Your task to perform on an android device: turn smart compose on in the gmail app Image 0: 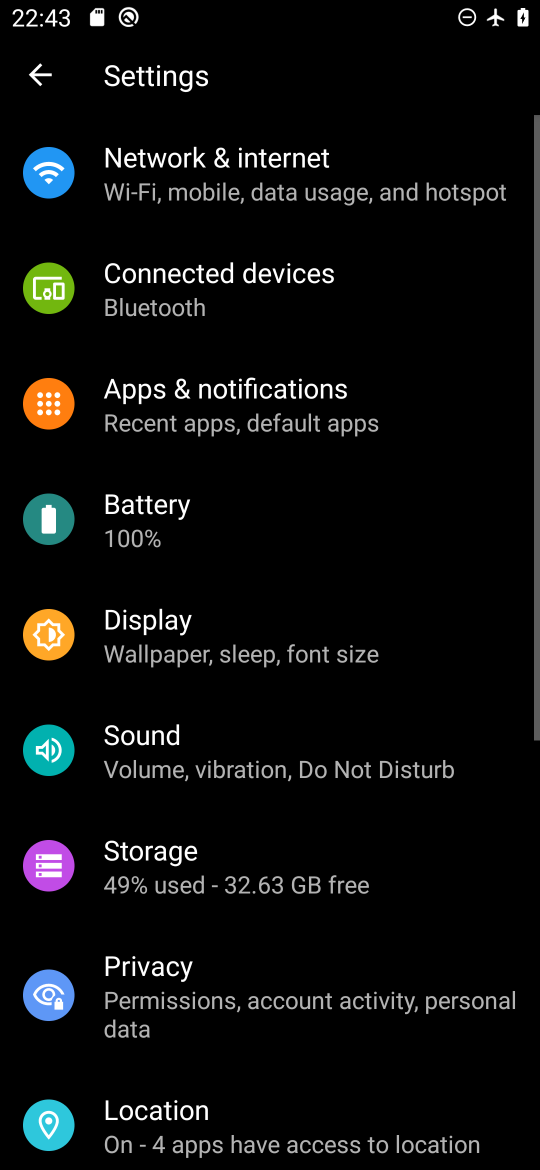
Step 0: press home button
Your task to perform on an android device: turn smart compose on in the gmail app Image 1: 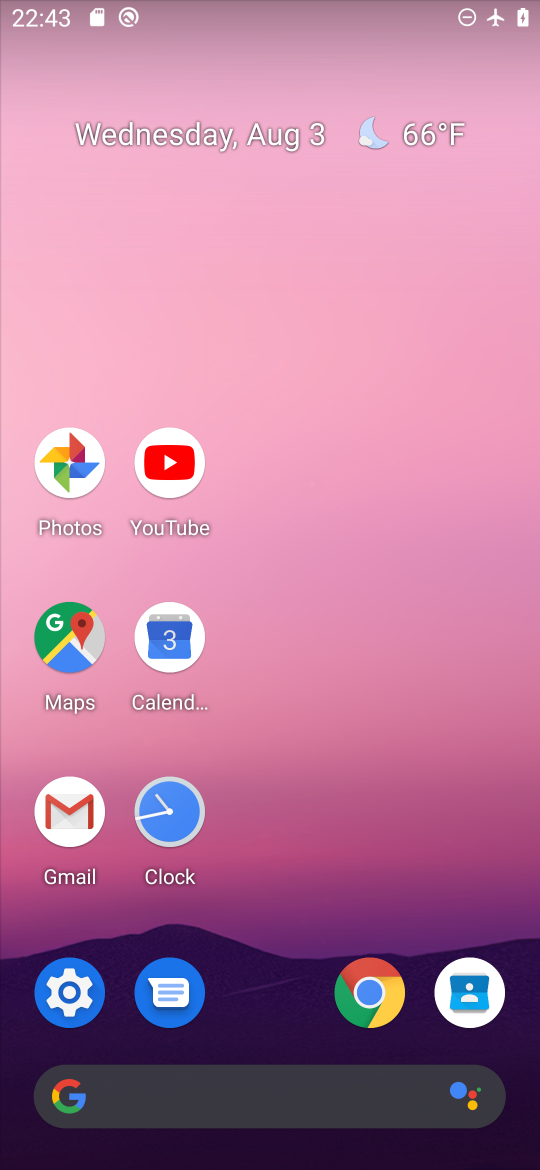
Step 1: click (76, 822)
Your task to perform on an android device: turn smart compose on in the gmail app Image 2: 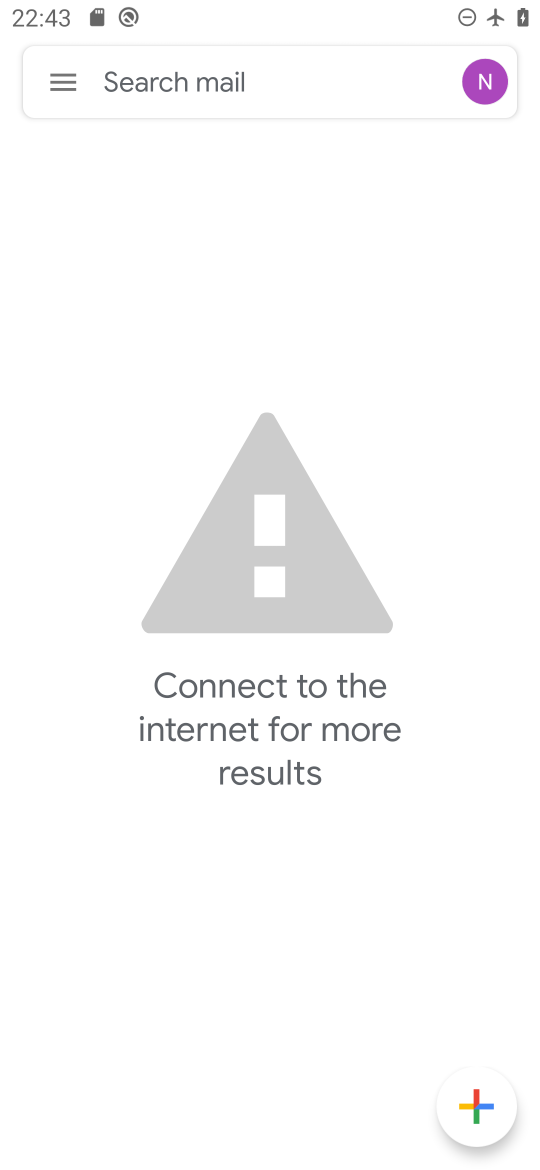
Step 2: click (57, 69)
Your task to perform on an android device: turn smart compose on in the gmail app Image 3: 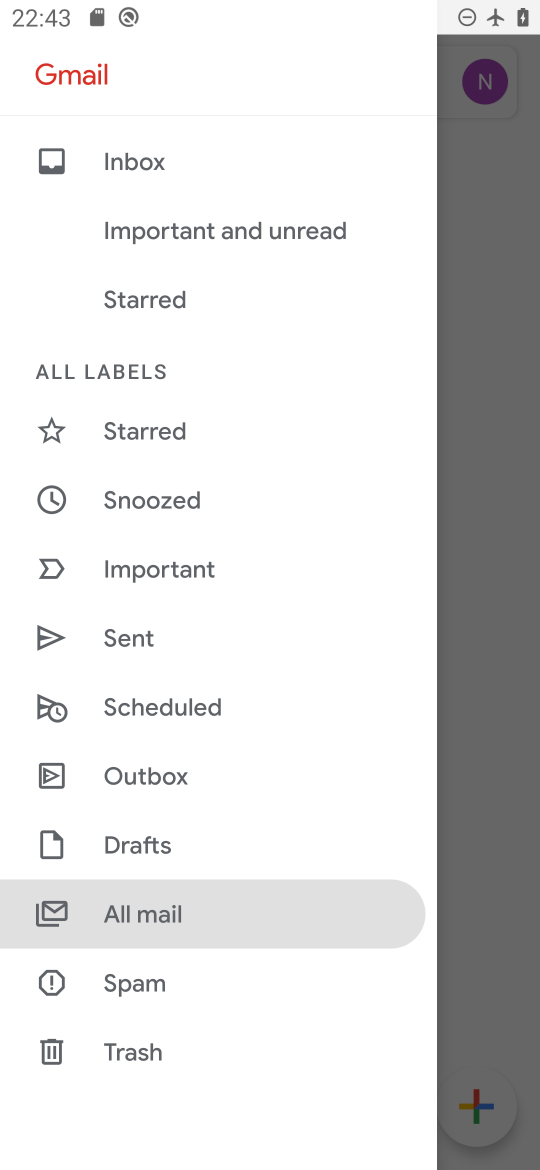
Step 3: drag from (245, 1051) to (216, 437)
Your task to perform on an android device: turn smart compose on in the gmail app Image 4: 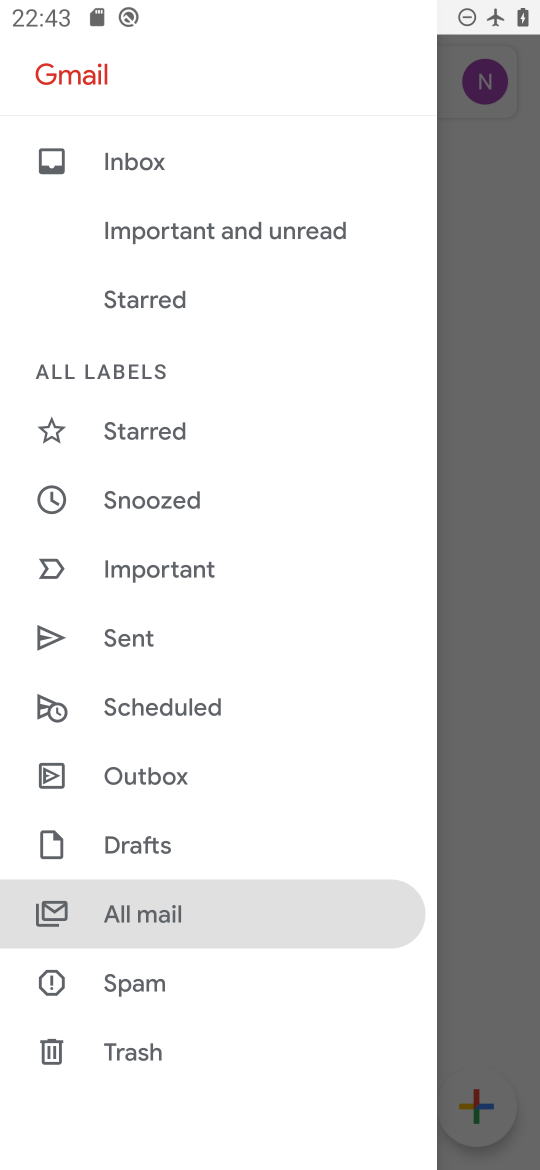
Step 4: drag from (254, 826) to (255, 268)
Your task to perform on an android device: turn smart compose on in the gmail app Image 5: 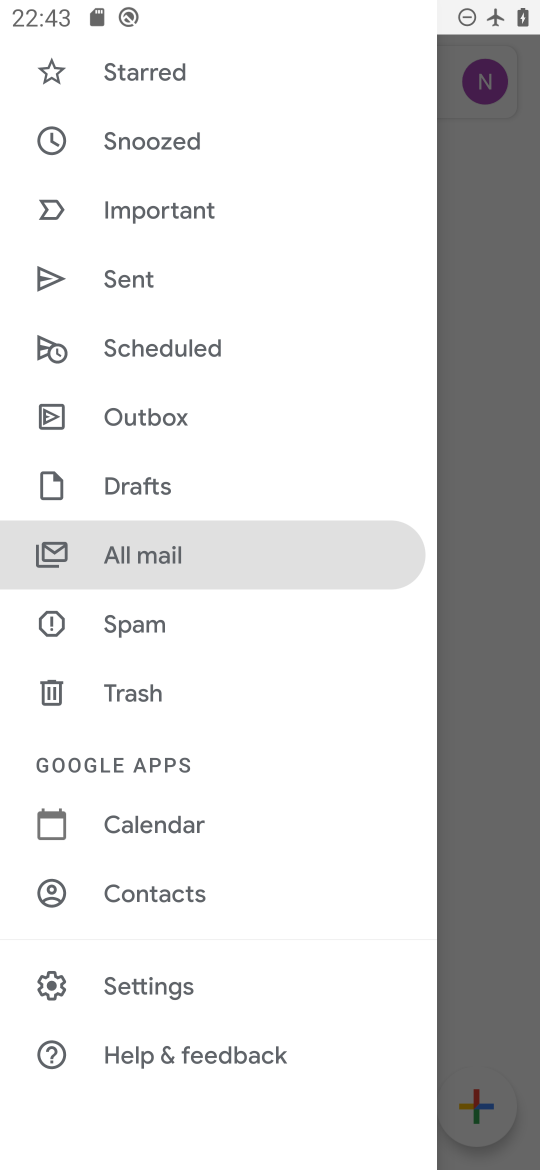
Step 5: click (156, 985)
Your task to perform on an android device: turn smart compose on in the gmail app Image 6: 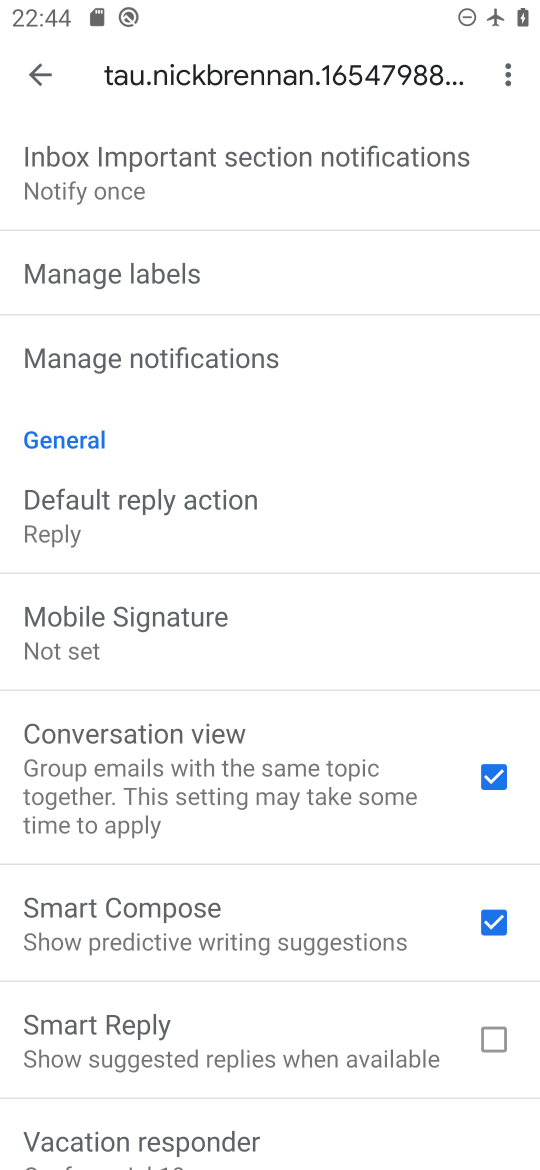
Step 6: task complete